Your task to perform on an android device: turn off javascript in the chrome app Image 0: 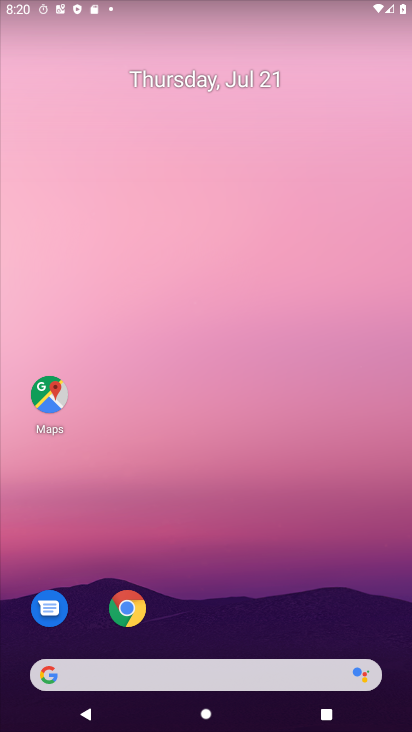
Step 0: press home button
Your task to perform on an android device: turn off javascript in the chrome app Image 1: 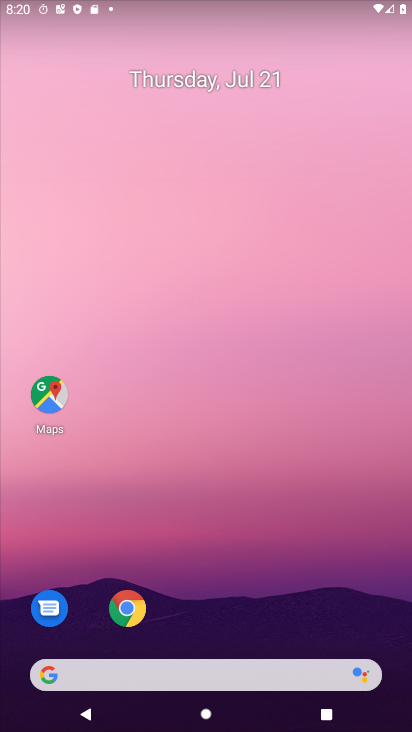
Step 1: drag from (303, 629) to (410, 88)
Your task to perform on an android device: turn off javascript in the chrome app Image 2: 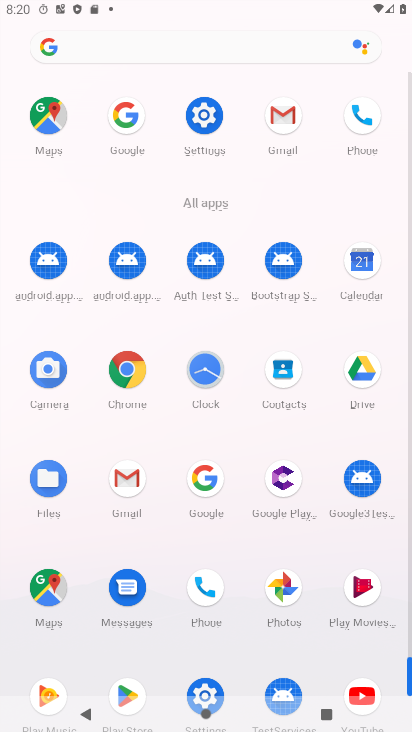
Step 2: click (130, 367)
Your task to perform on an android device: turn off javascript in the chrome app Image 3: 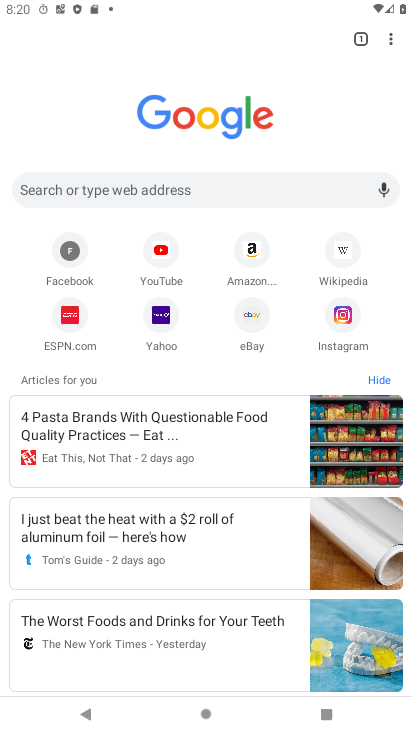
Step 3: drag from (385, 33) to (235, 319)
Your task to perform on an android device: turn off javascript in the chrome app Image 4: 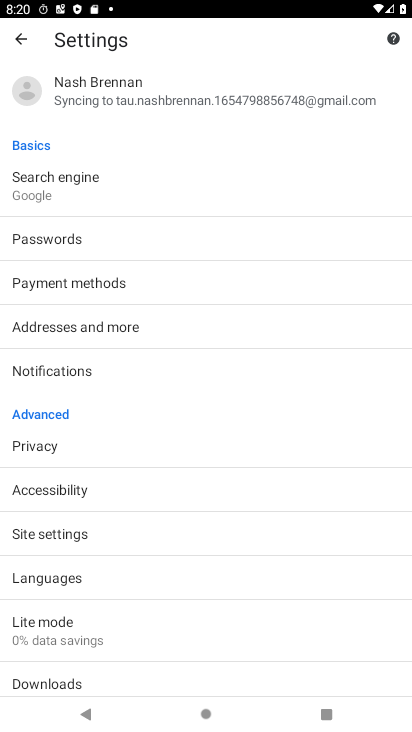
Step 4: click (70, 540)
Your task to perform on an android device: turn off javascript in the chrome app Image 5: 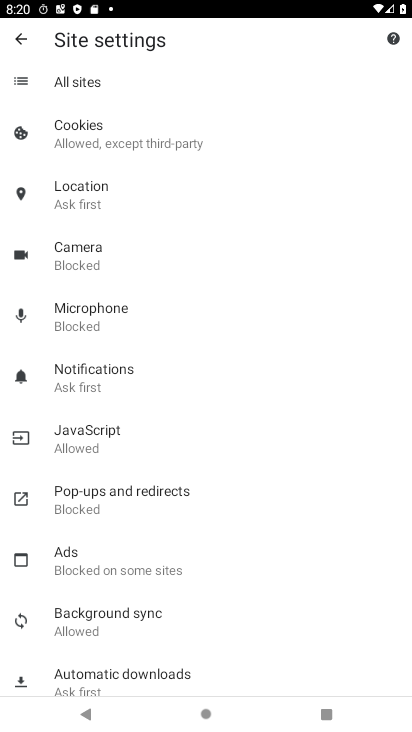
Step 5: click (50, 431)
Your task to perform on an android device: turn off javascript in the chrome app Image 6: 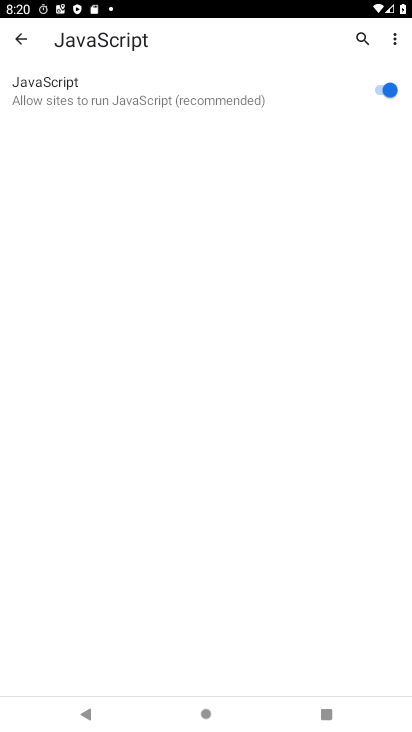
Step 6: click (307, 83)
Your task to perform on an android device: turn off javascript in the chrome app Image 7: 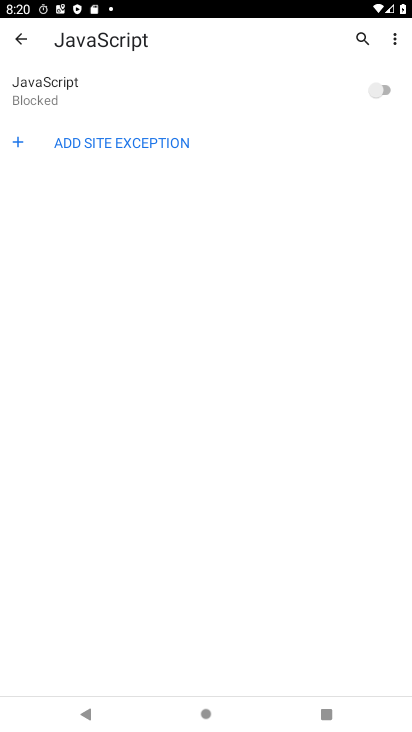
Step 7: task complete